Your task to perform on an android device: allow cookies in the chrome app Image 0: 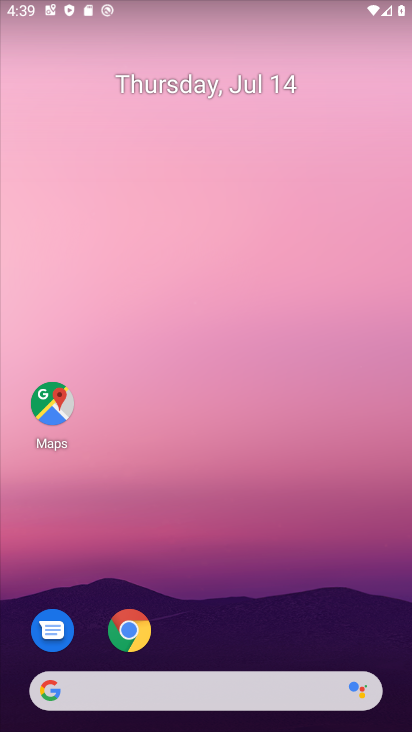
Step 0: click (121, 620)
Your task to perform on an android device: allow cookies in the chrome app Image 1: 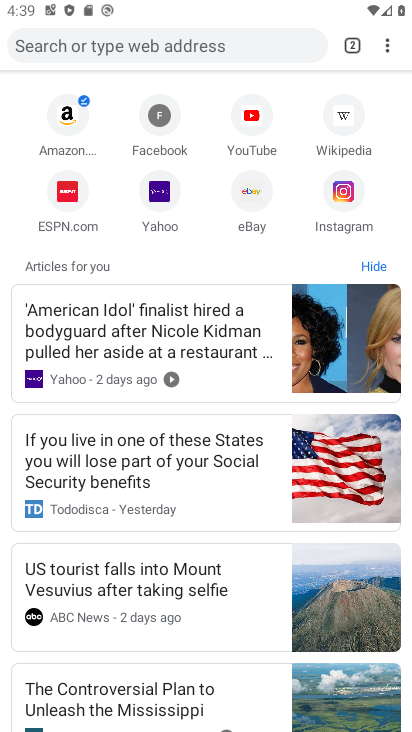
Step 1: click (380, 42)
Your task to perform on an android device: allow cookies in the chrome app Image 2: 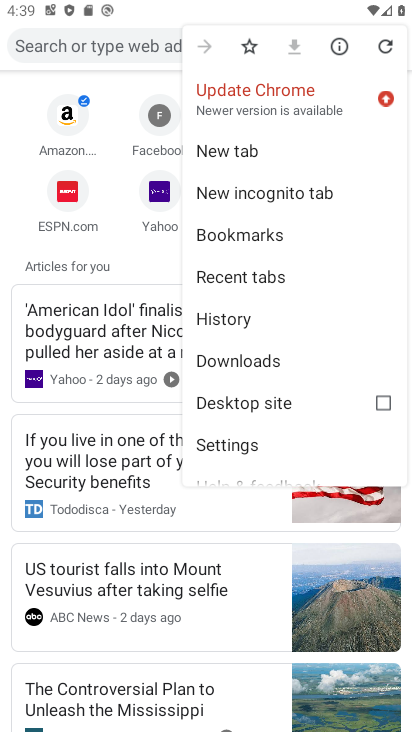
Step 2: click (256, 452)
Your task to perform on an android device: allow cookies in the chrome app Image 3: 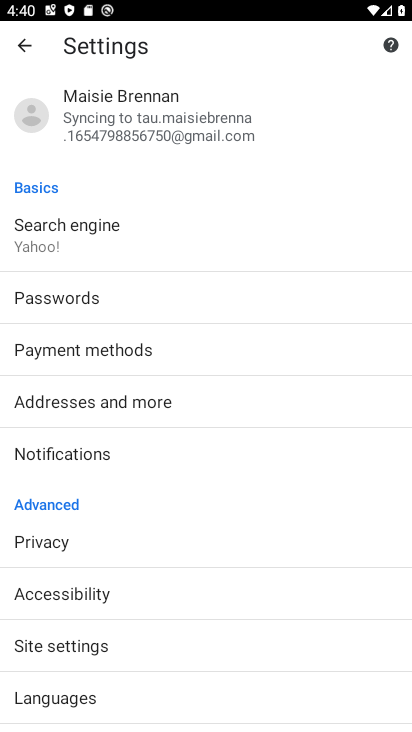
Step 3: click (87, 650)
Your task to perform on an android device: allow cookies in the chrome app Image 4: 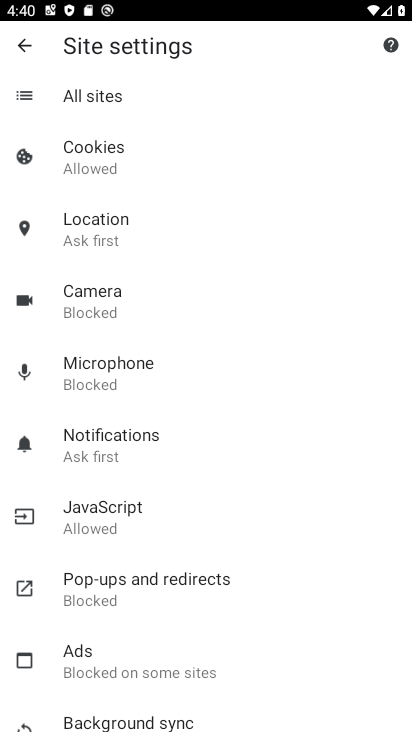
Step 4: click (176, 171)
Your task to perform on an android device: allow cookies in the chrome app Image 5: 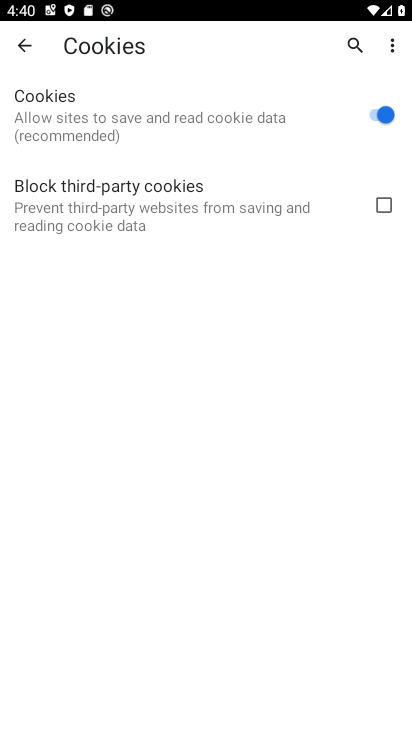
Step 5: task complete